Your task to perform on an android device: Go to wifi settings Image 0: 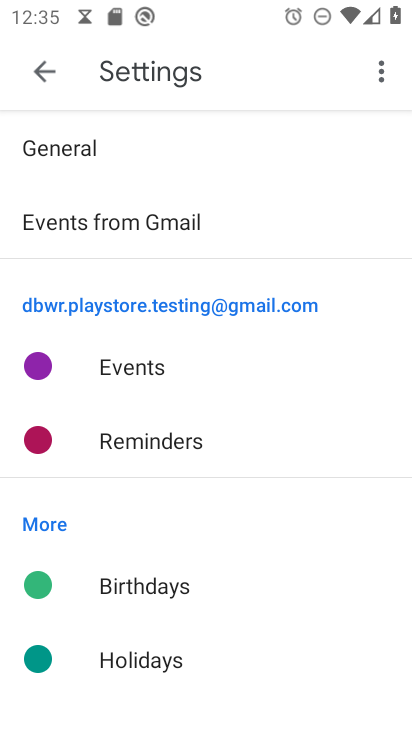
Step 0: press home button
Your task to perform on an android device: Go to wifi settings Image 1: 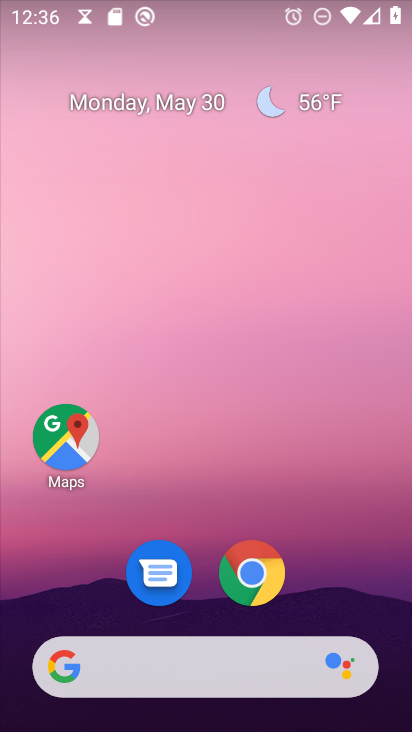
Step 1: drag from (307, 664) to (228, 2)
Your task to perform on an android device: Go to wifi settings Image 2: 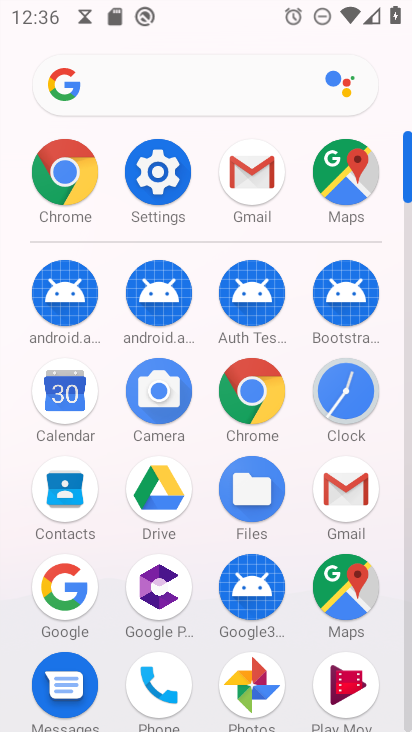
Step 2: click (181, 171)
Your task to perform on an android device: Go to wifi settings Image 3: 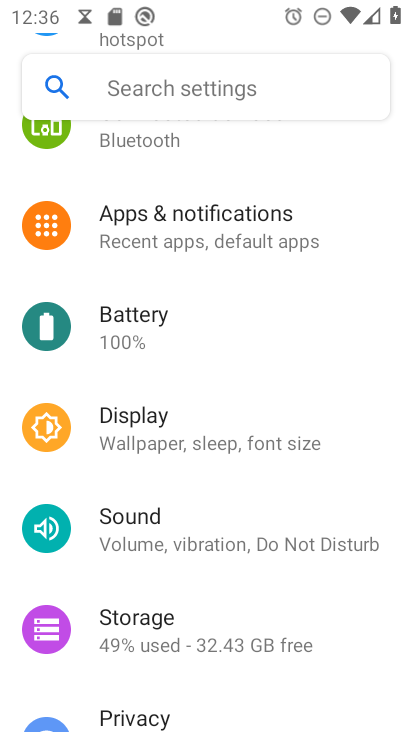
Step 3: drag from (184, 180) to (99, 719)
Your task to perform on an android device: Go to wifi settings Image 4: 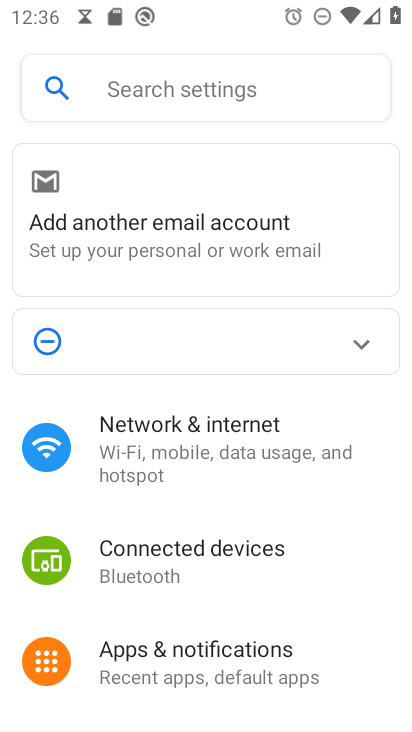
Step 4: click (232, 456)
Your task to perform on an android device: Go to wifi settings Image 5: 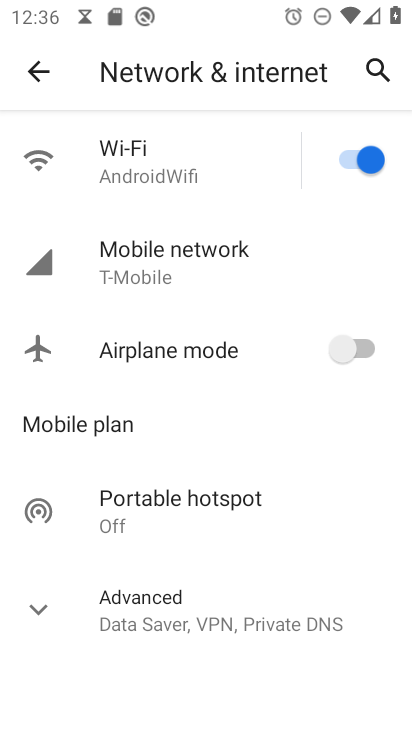
Step 5: click (162, 148)
Your task to perform on an android device: Go to wifi settings Image 6: 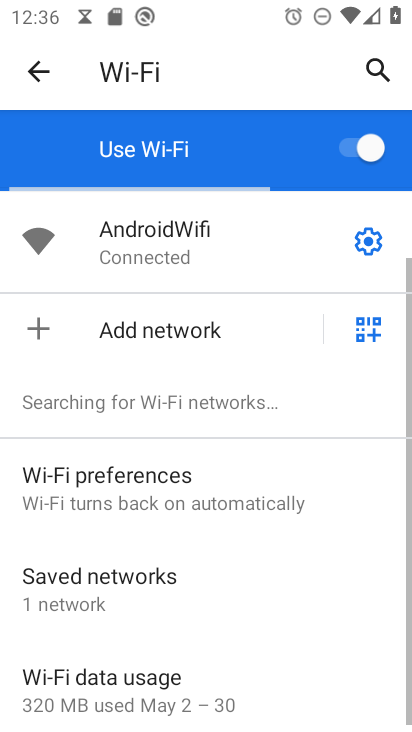
Step 6: task complete